Your task to perform on an android device: turn vacation reply on in the gmail app Image 0: 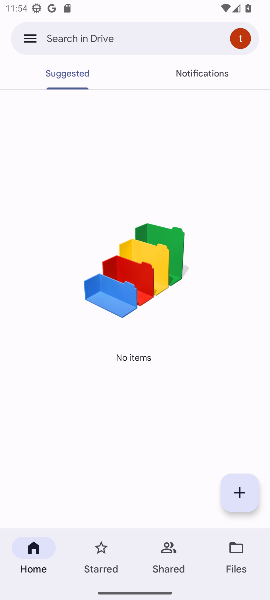
Step 0: press home button
Your task to perform on an android device: turn vacation reply on in the gmail app Image 1: 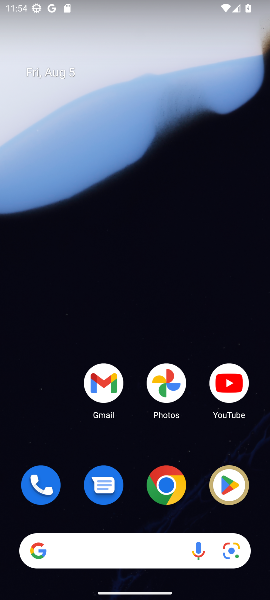
Step 1: click (103, 384)
Your task to perform on an android device: turn vacation reply on in the gmail app Image 2: 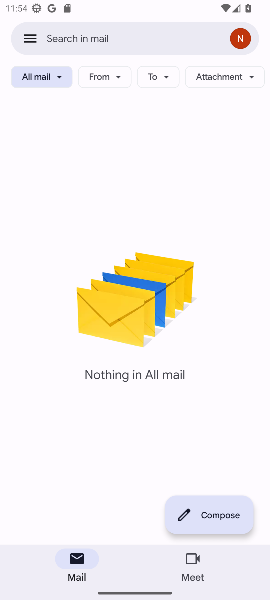
Step 2: click (26, 33)
Your task to perform on an android device: turn vacation reply on in the gmail app Image 3: 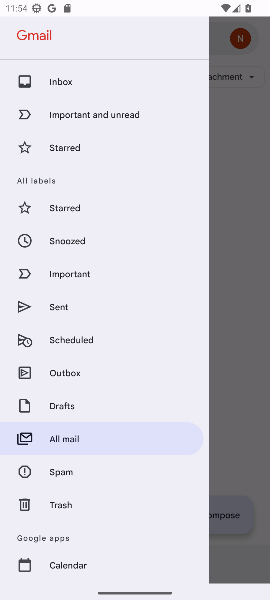
Step 3: drag from (86, 510) to (83, 277)
Your task to perform on an android device: turn vacation reply on in the gmail app Image 4: 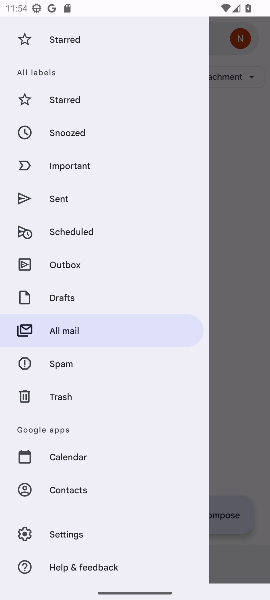
Step 4: click (59, 530)
Your task to perform on an android device: turn vacation reply on in the gmail app Image 5: 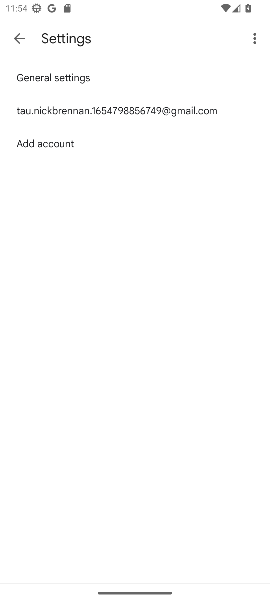
Step 5: click (56, 106)
Your task to perform on an android device: turn vacation reply on in the gmail app Image 6: 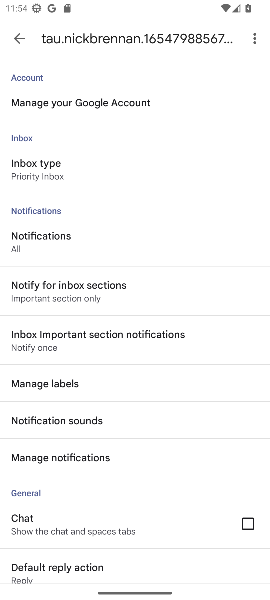
Step 6: drag from (111, 492) to (119, 222)
Your task to perform on an android device: turn vacation reply on in the gmail app Image 7: 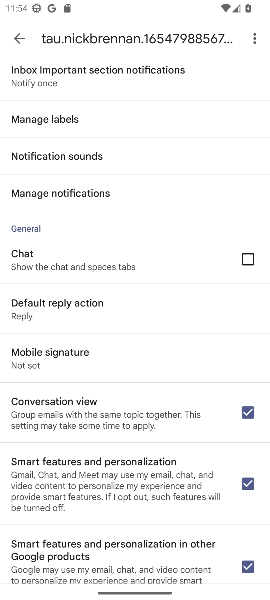
Step 7: drag from (155, 497) to (148, 205)
Your task to perform on an android device: turn vacation reply on in the gmail app Image 8: 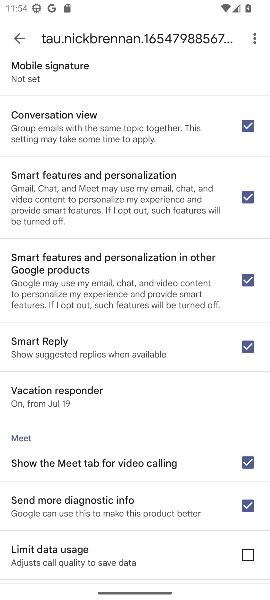
Step 8: click (60, 387)
Your task to perform on an android device: turn vacation reply on in the gmail app Image 9: 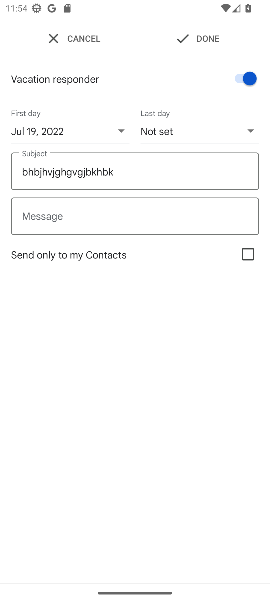
Step 9: task complete